Your task to perform on an android device: Check the weather Image 0: 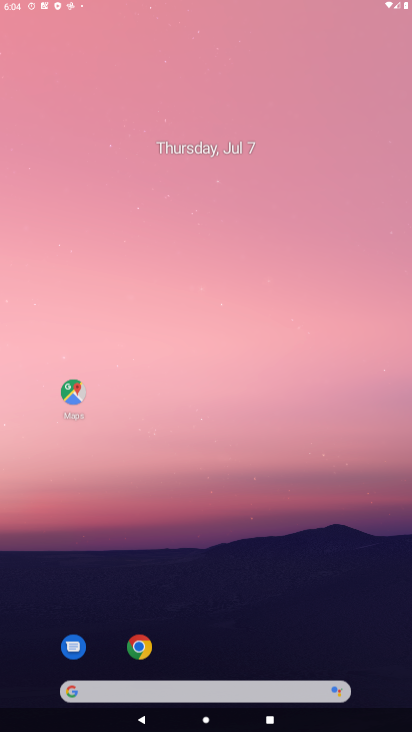
Step 0: drag from (301, 259) to (195, 9)
Your task to perform on an android device: Check the weather Image 1: 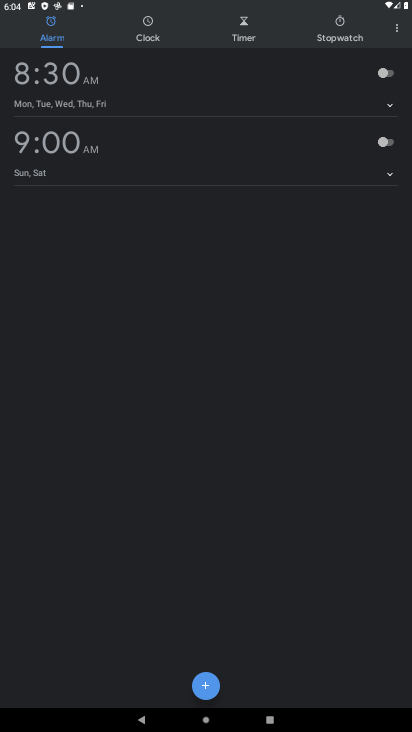
Step 1: press home button
Your task to perform on an android device: Check the weather Image 2: 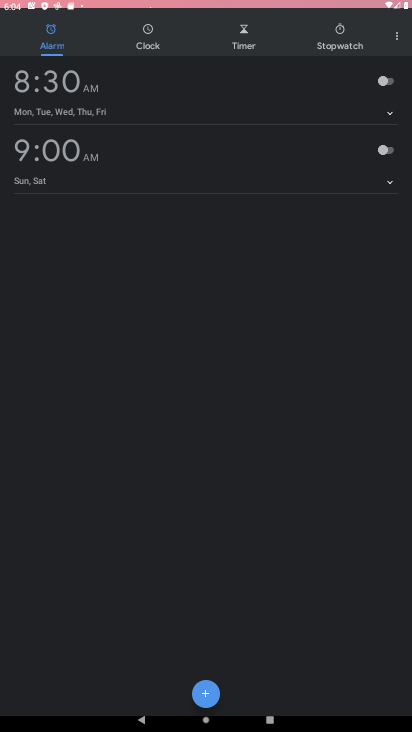
Step 2: drag from (350, 651) to (206, 35)
Your task to perform on an android device: Check the weather Image 3: 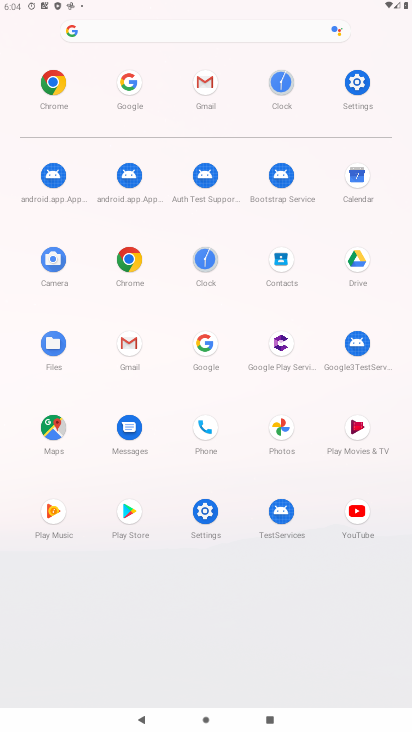
Step 3: click (192, 345)
Your task to perform on an android device: Check the weather Image 4: 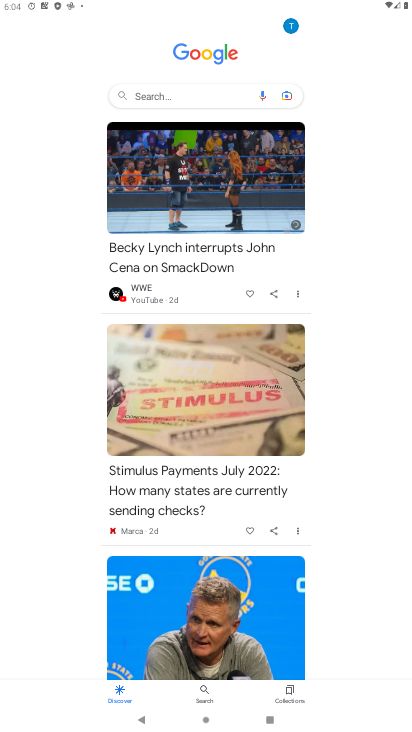
Step 4: click (157, 88)
Your task to perform on an android device: Check the weather Image 5: 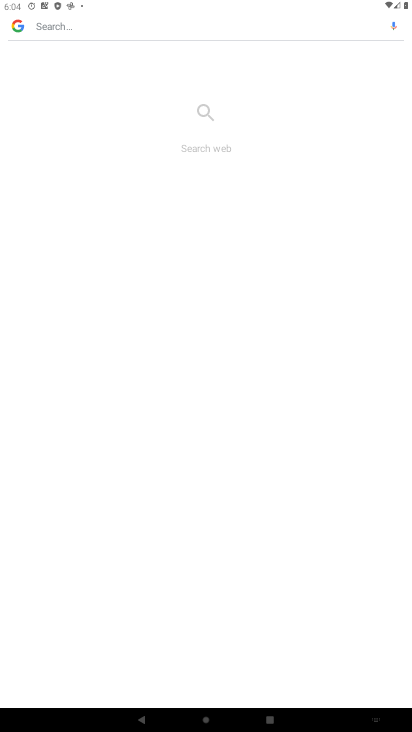
Step 5: type "Check the weather"
Your task to perform on an android device: Check the weather Image 6: 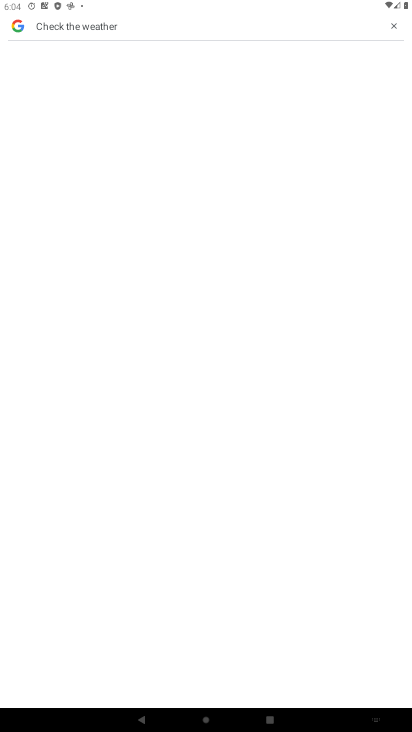
Step 6: task complete